Your task to perform on an android device: Show me popular games on the Play Store Image 0: 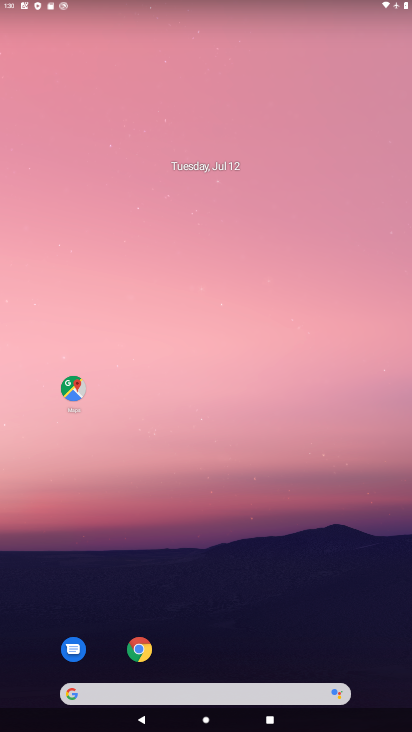
Step 0: drag from (266, 654) to (236, 301)
Your task to perform on an android device: Show me popular games on the Play Store Image 1: 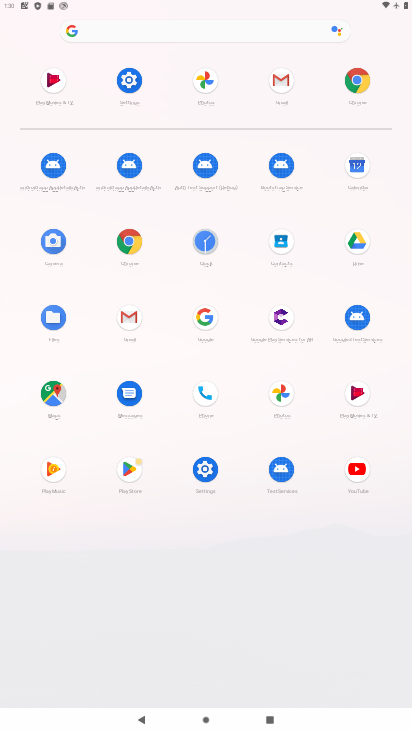
Step 1: click (130, 104)
Your task to perform on an android device: Show me popular games on the Play Store Image 2: 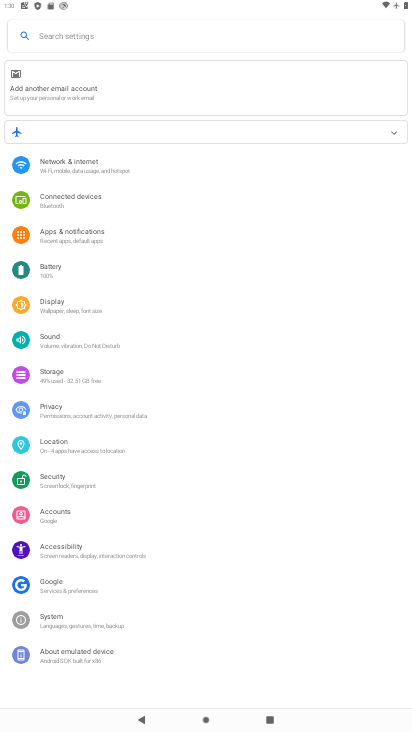
Step 2: press home button
Your task to perform on an android device: Show me popular games on the Play Store Image 3: 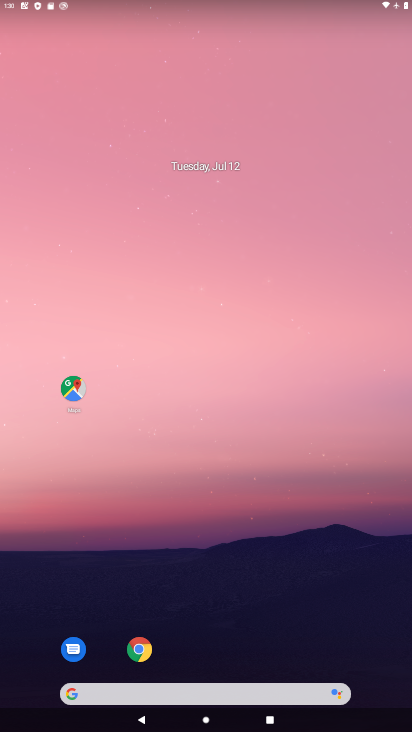
Step 3: drag from (229, 632) to (164, 97)
Your task to perform on an android device: Show me popular games on the Play Store Image 4: 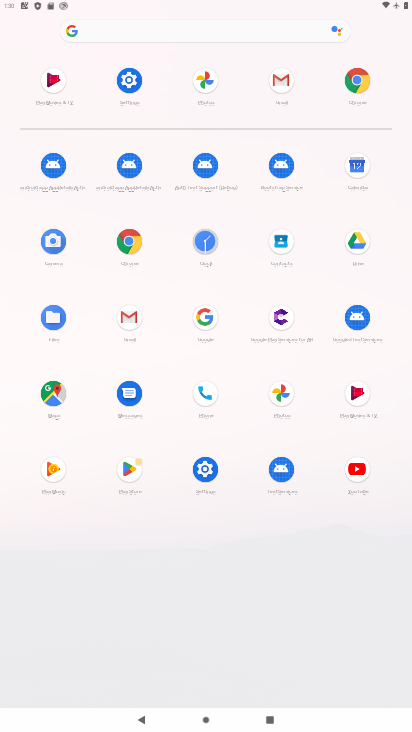
Step 4: click (127, 470)
Your task to perform on an android device: Show me popular games on the Play Store Image 5: 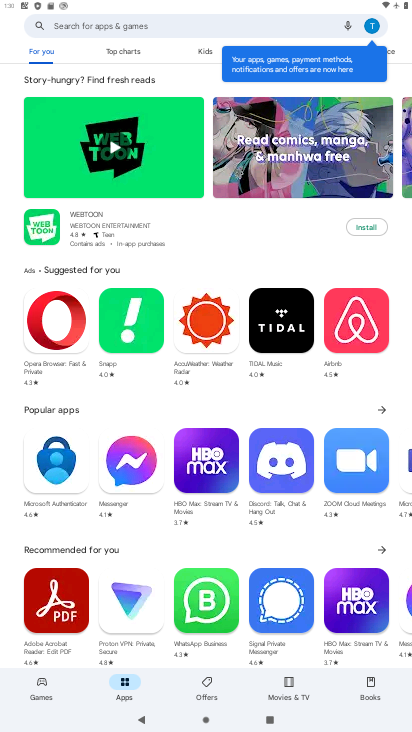
Step 5: click (122, 57)
Your task to perform on an android device: Show me popular games on the Play Store Image 6: 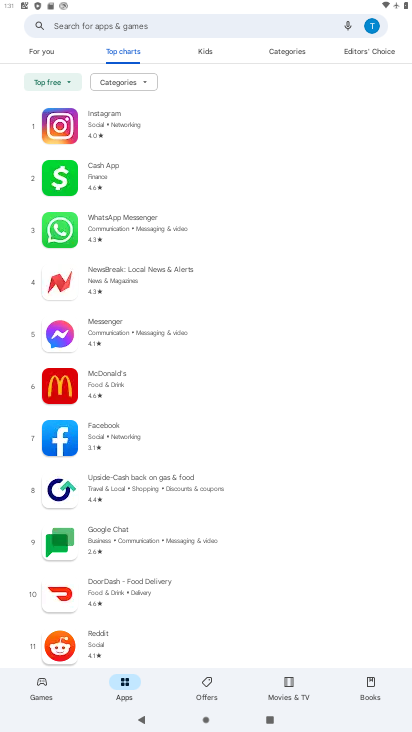
Step 6: click (133, 86)
Your task to perform on an android device: Show me popular games on the Play Store Image 7: 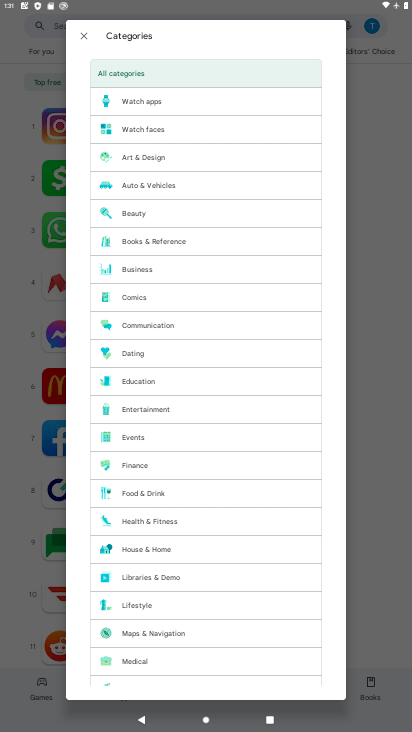
Step 7: drag from (223, 622) to (165, 137)
Your task to perform on an android device: Show me popular games on the Play Store Image 8: 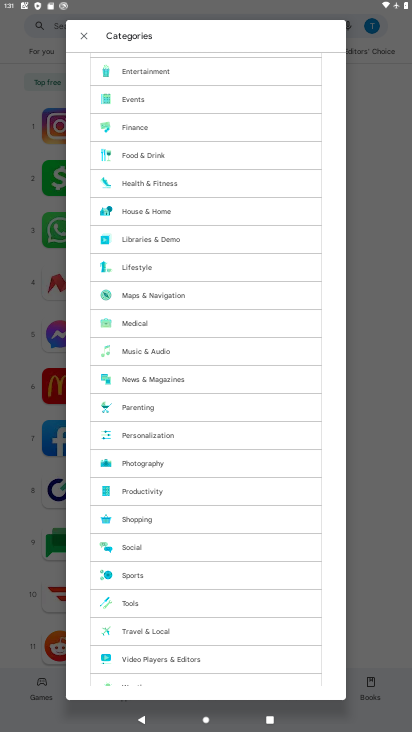
Step 8: drag from (157, 619) to (152, 286)
Your task to perform on an android device: Show me popular games on the Play Store Image 9: 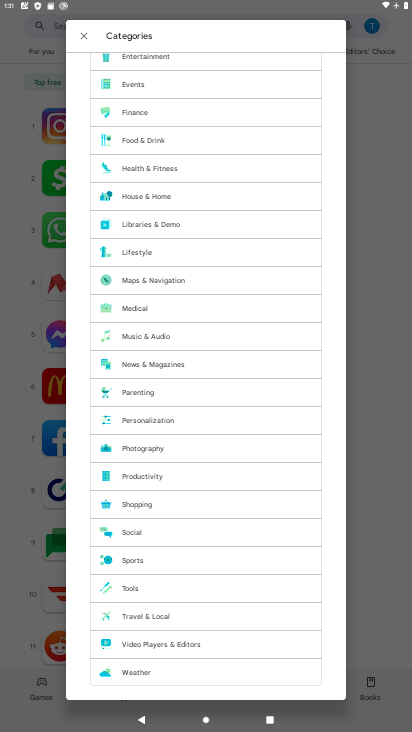
Step 9: click (181, 473)
Your task to perform on an android device: Show me popular games on the Play Store Image 10: 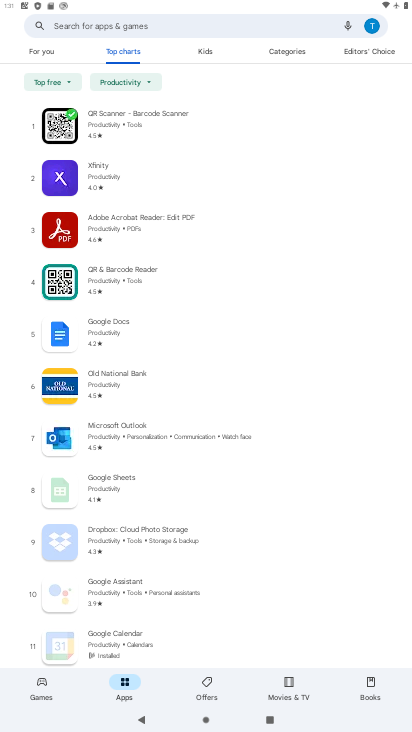
Step 10: task complete